Your task to perform on an android device: check battery use Image 0: 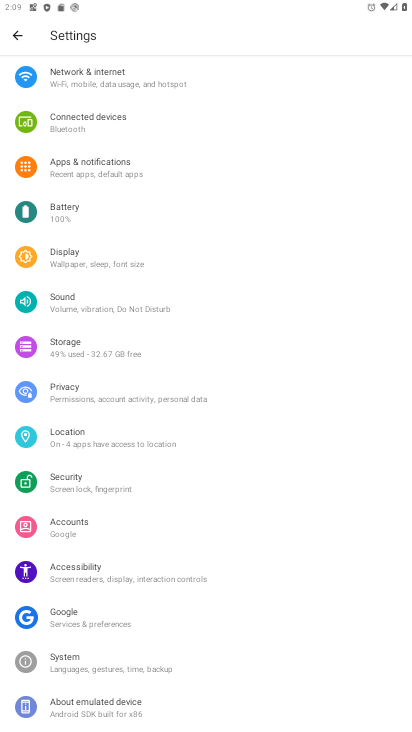
Step 0: click (73, 217)
Your task to perform on an android device: check battery use Image 1: 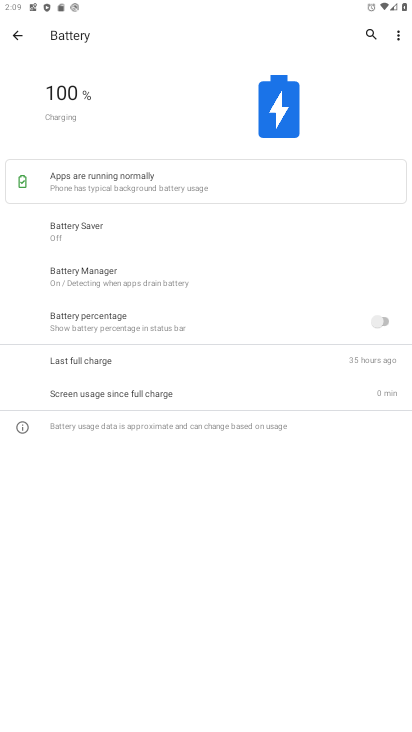
Step 1: task complete